Your task to perform on an android device: toggle sleep mode Image 0: 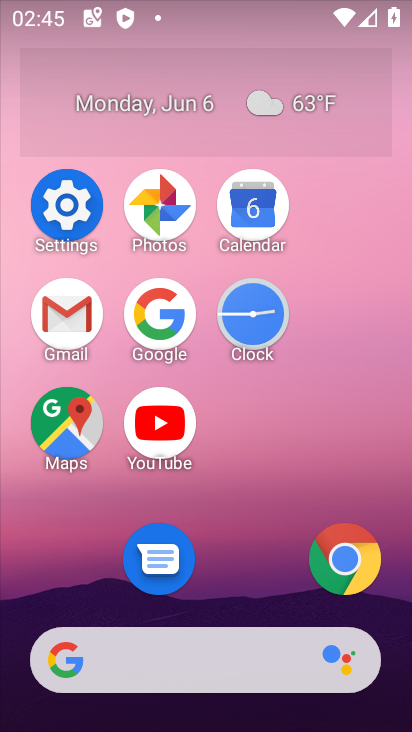
Step 0: click (58, 219)
Your task to perform on an android device: toggle sleep mode Image 1: 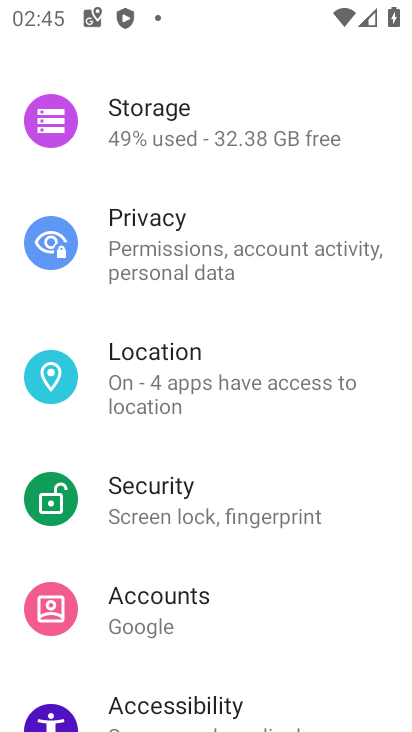
Step 1: drag from (271, 178) to (259, 564)
Your task to perform on an android device: toggle sleep mode Image 2: 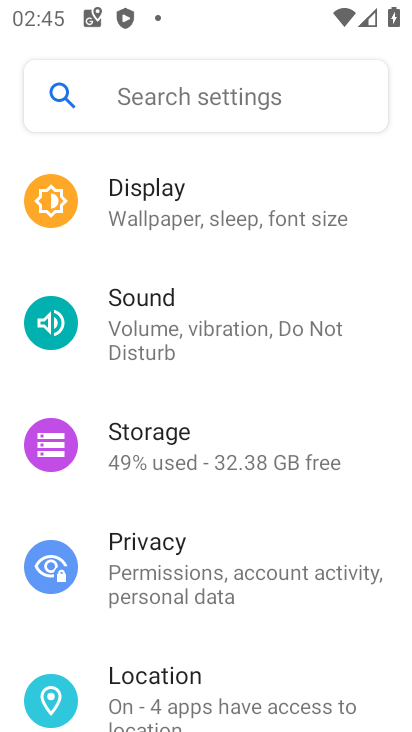
Step 2: click (270, 210)
Your task to perform on an android device: toggle sleep mode Image 3: 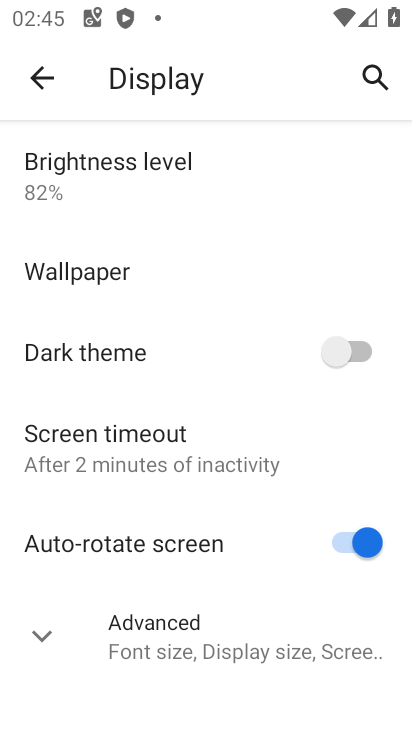
Step 3: click (186, 631)
Your task to perform on an android device: toggle sleep mode Image 4: 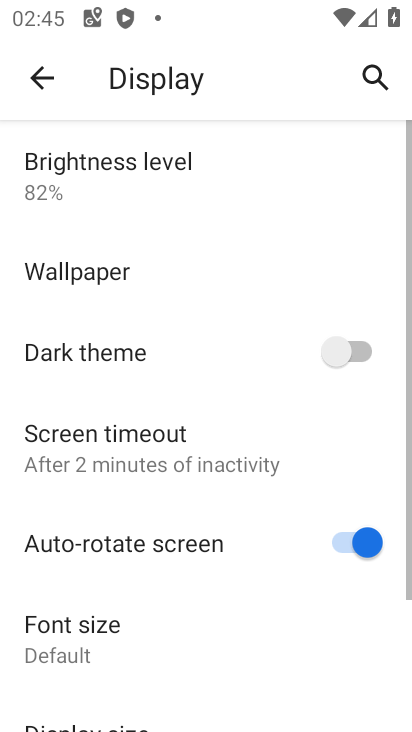
Step 4: drag from (187, 627) to (225, 177)
Your task to perform on an android device: toggle sleep mode Image 5: 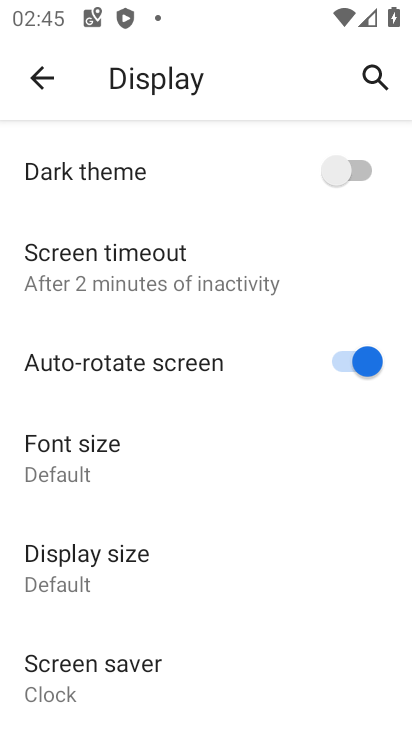
Step 5: click (225, 273)
Your task to perform on an android device: toggle sleep mode Image 6: 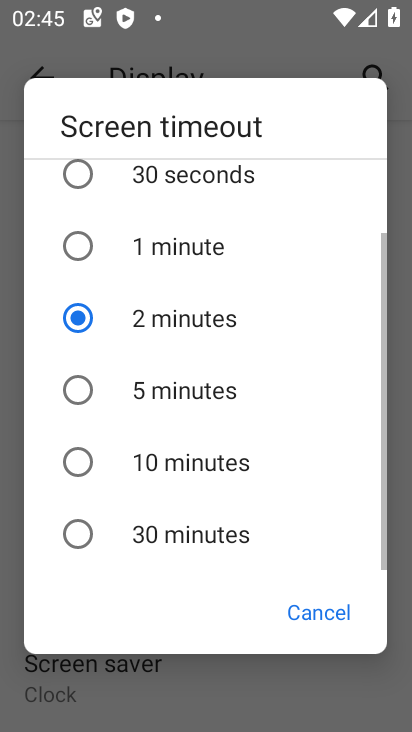
Step 6: click (202, 242)
Your task to perform on an android device: toggle sleep mode Image 7: 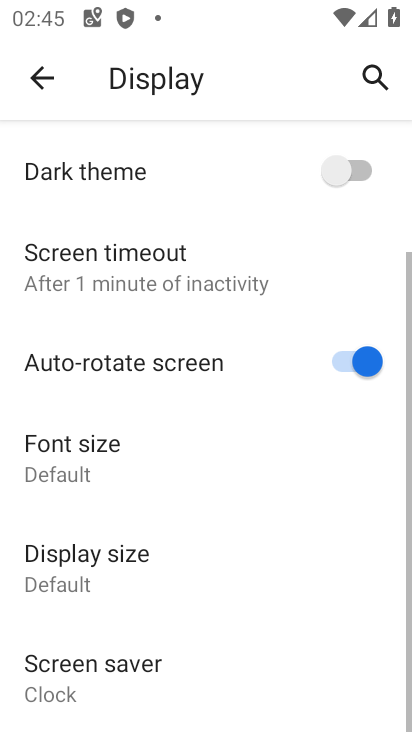
Step 7: task complete